Your task to perform on an android device: View the shopping cart on walmart.com. Search for alienware aurora on walmart.com, select the first entry, add it to the cart, then select checkout. Image 0: 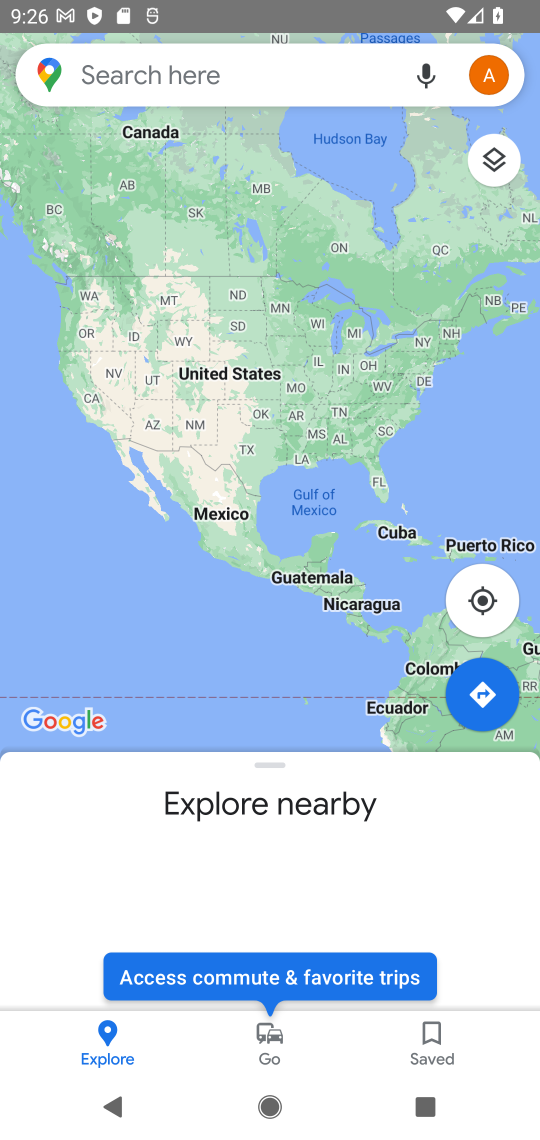
Step 0: press home button
Your task to perform on an android device: View the shopping cart on walmart.com. Search for alienware aurora on walmart.com, select the first entry, add it to the cart, then select checkout. Image 1: 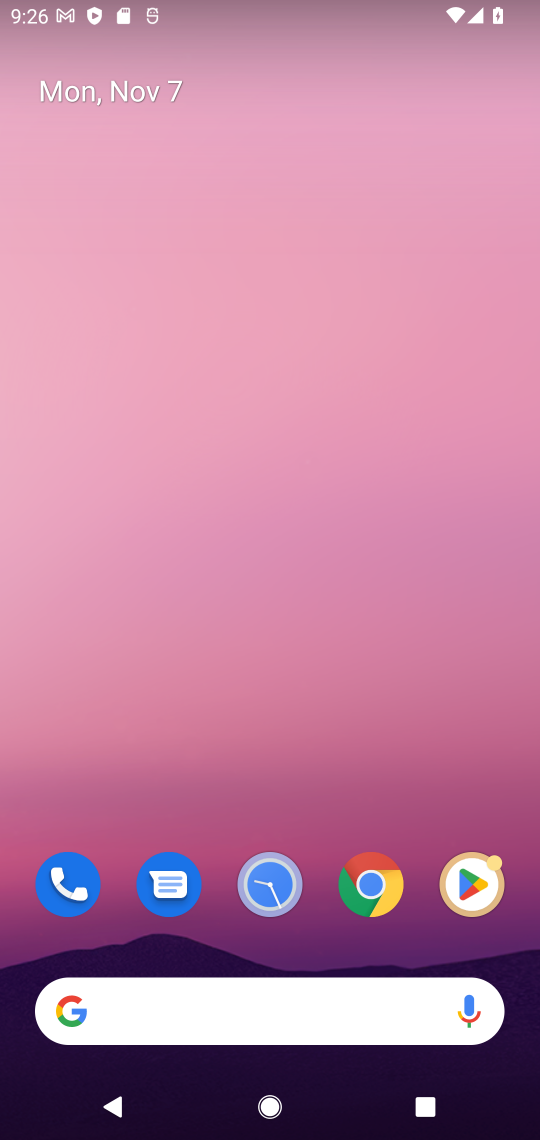
Step 1: click (357, 868)
Your task to perform on an android device: View the shopping cart on walmart.com. Search for alienware aurora on walmart.com, select the first entry, add it to the cart, then select checkout. Image 2: 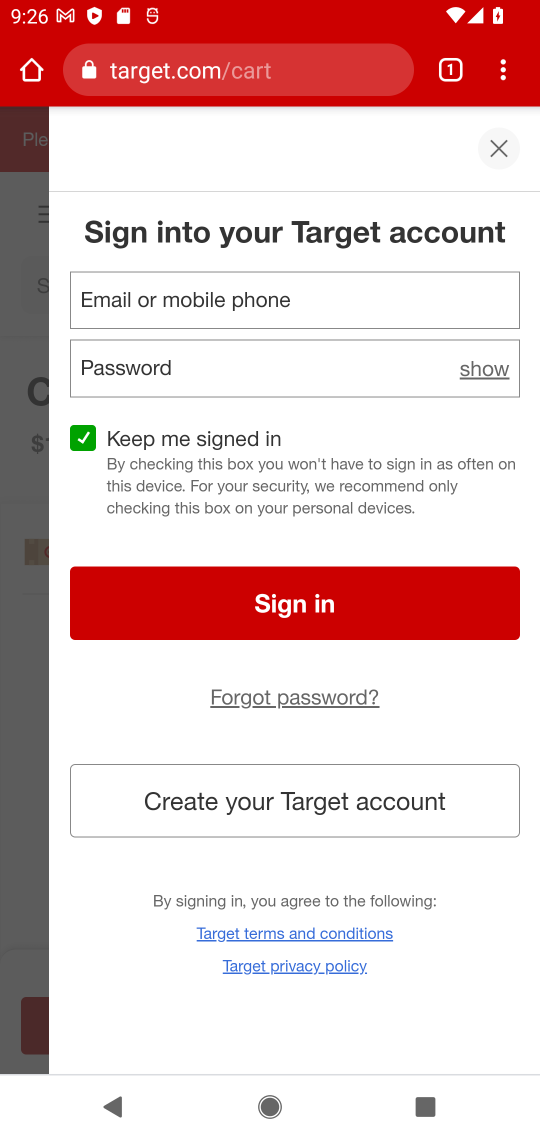
Step 2: click (350, 79)
Your task to perform on an android device: View the shopping cart on walmart.com. Search for alienware aurora on walmart.com, select the first entry, add it to the cart, then select checkout. Image 3: 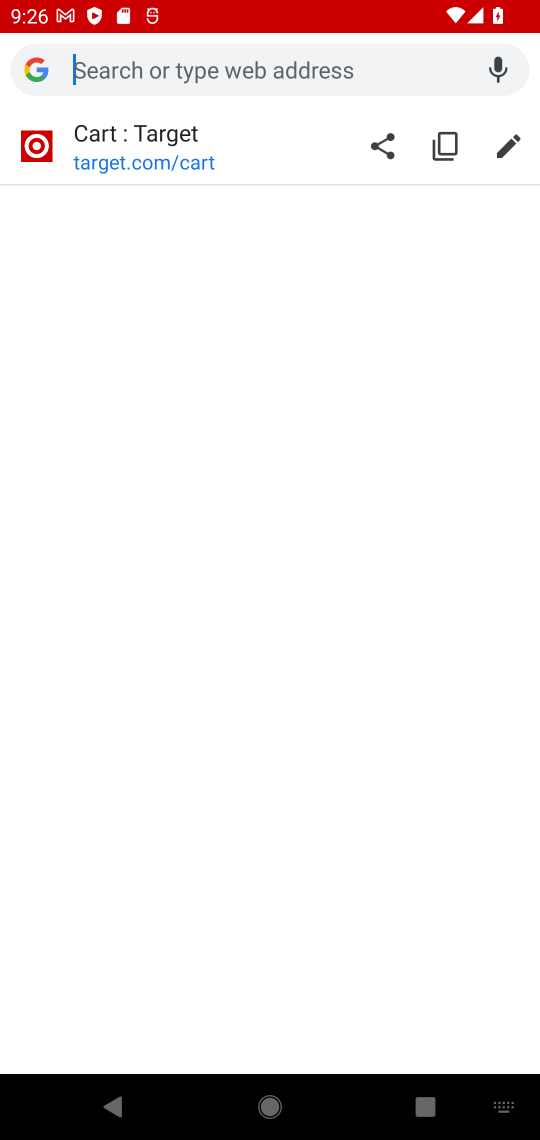
Step 3: type "walmart.com"
Your task to perform on an android device: View the shopping cart on walmart.com. Search for alienware aurora on walmart.com, select the first entry, add it to the cart, then select checkout. Image 4: 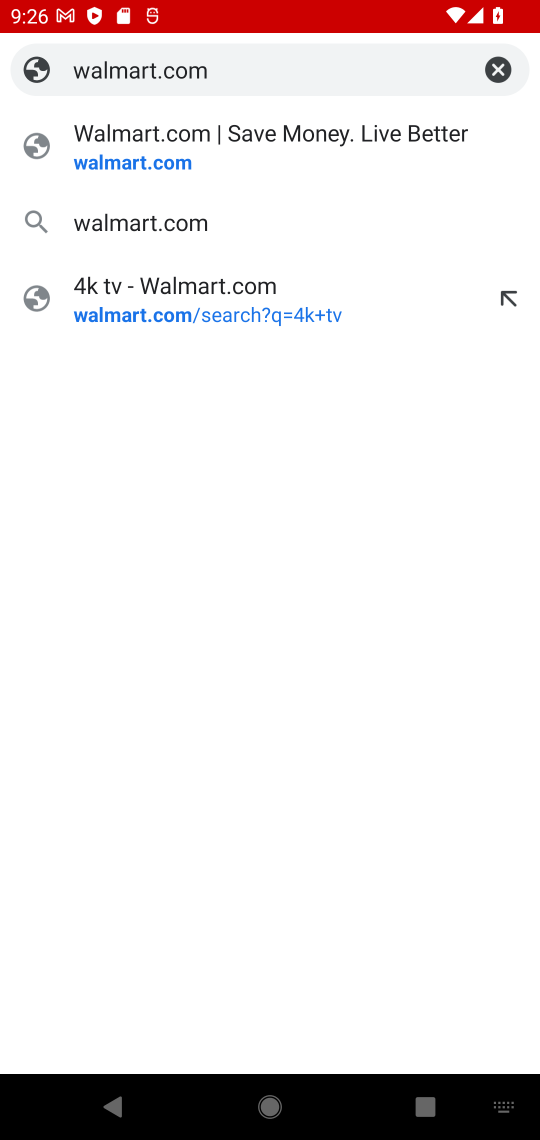
Step 4: click (123, 224)
Your task to perform on an android device: View the shopping cart on walmart.com. Search for alienware aurora on walmart.com, select the first entry, add it to the cart, then select checkout. Image 5: 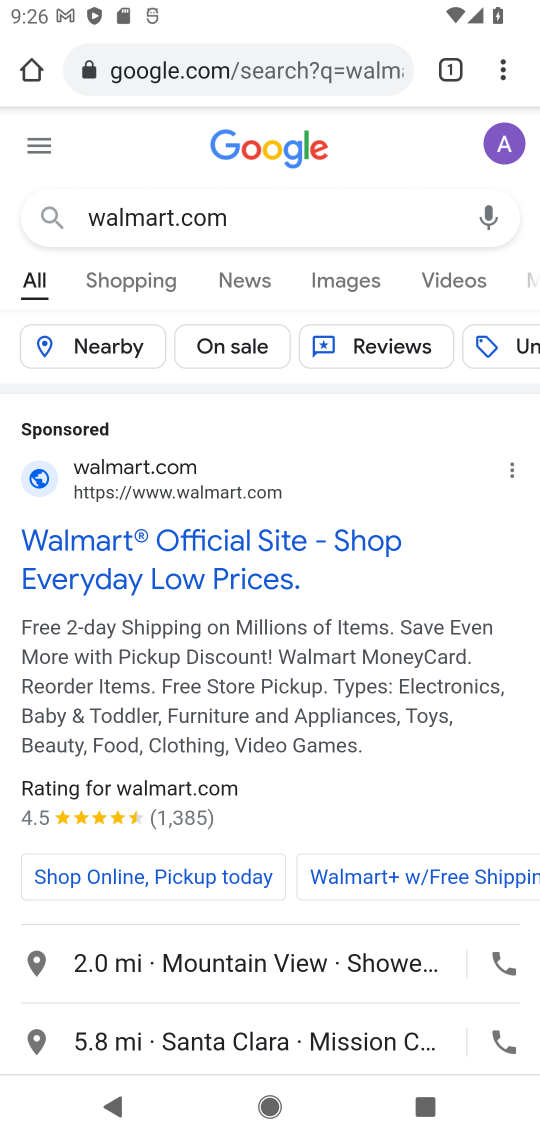
Step 5: click (136, 480)
Your task to perform on an android device: View the shopping cart on walmart.com. Search for alienware aurora on walmart.com, select the first entry, add it to the cart, then select checkout. Image 6: 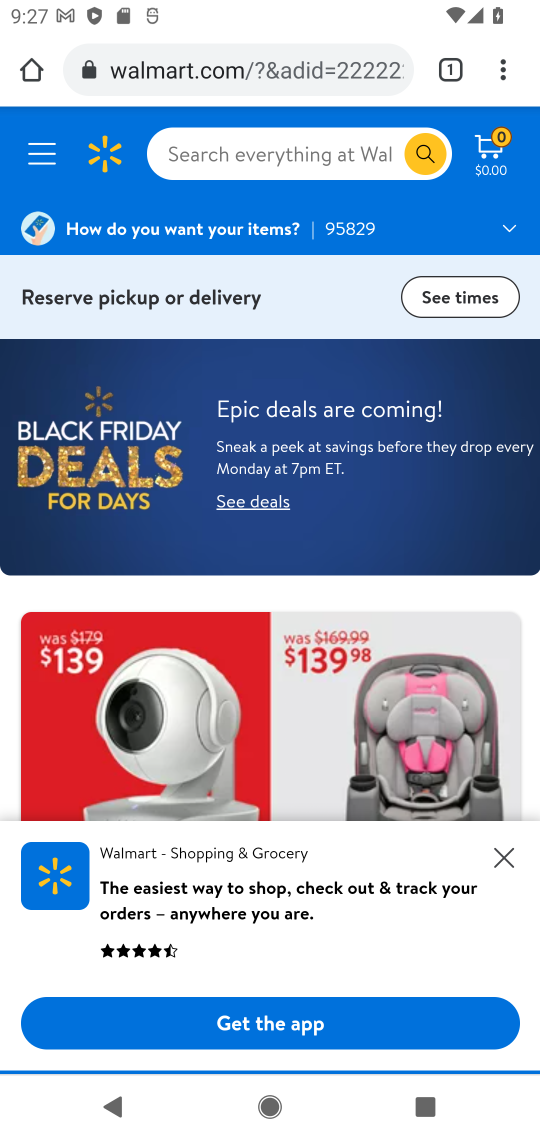
Step 6: click (270, 158)
Your task to perform on an android device: View the shopping cart on walmart.com. Search for alienware aurora on walmart.com, select the first entry, add it to the cart, then select checkout. Image 7: 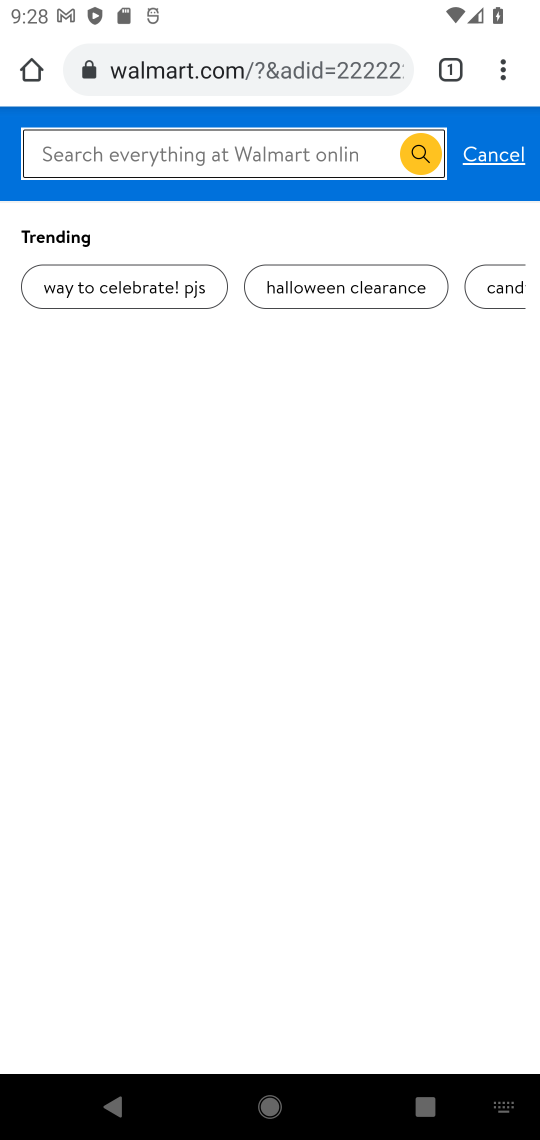
Step 7: click (300, 156)
Your task to perform on an android device: View the shopping cart on walmart.com. Search for alienware aurora on walmart.com, select the first entry, add it to the cart, then select checkout. Image 8: 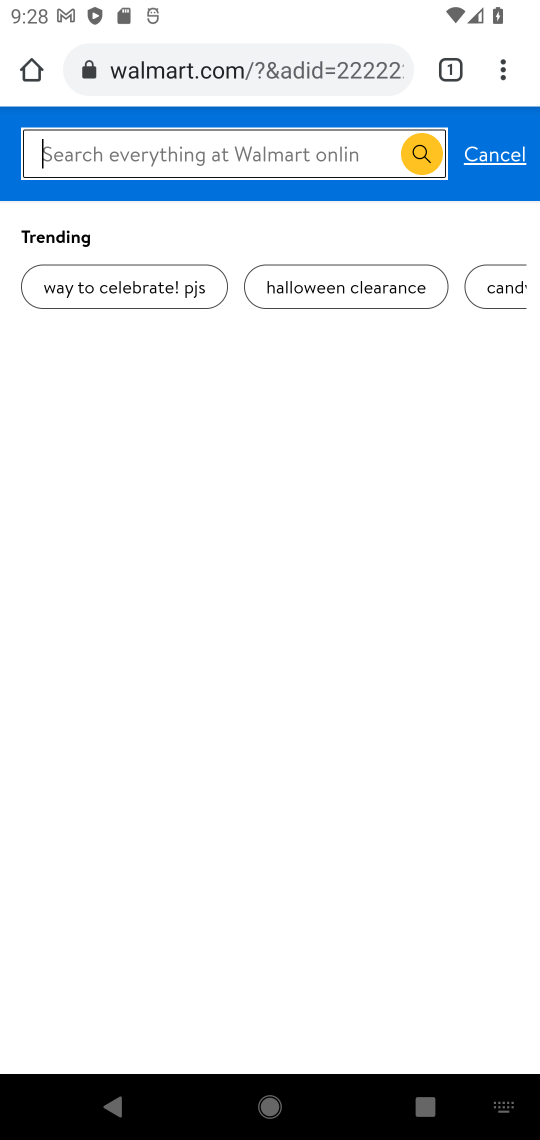
Step 8: click (145, 171)
Your task to perform on an android device: View the shopping cart on walmart.com. Search for alienware aurora on walmart.com, select the first entry, add it to the cart, then select checkout. Image 9: 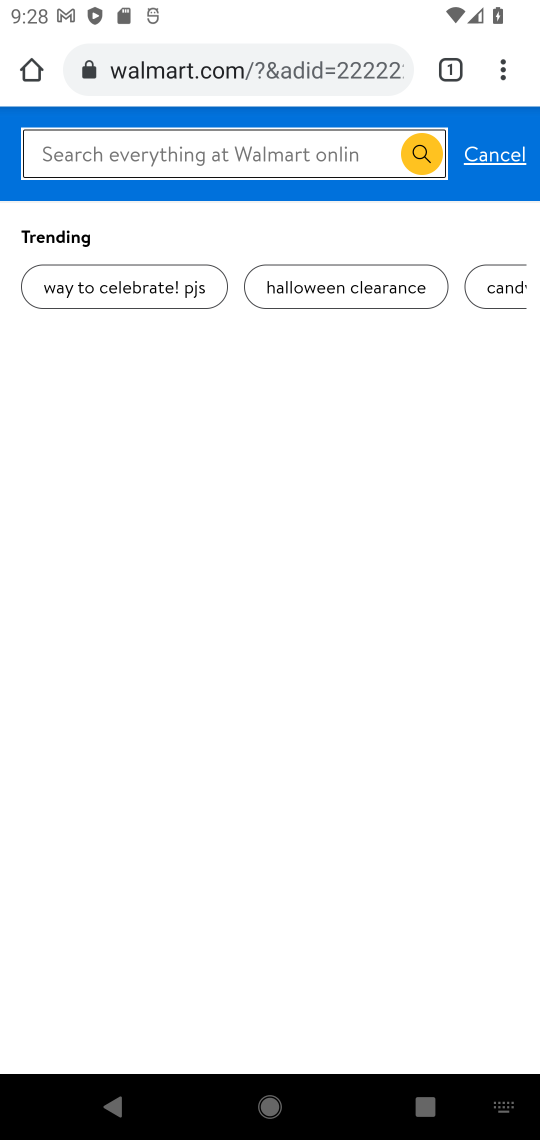
Step 9: type "alienware aurora"
Your task to perform on an android device: View the shopping cart on walmart.com. Search for alienware aurora on walmart.com, select the first entry, add it to the cart, then select checkout. Image 10: 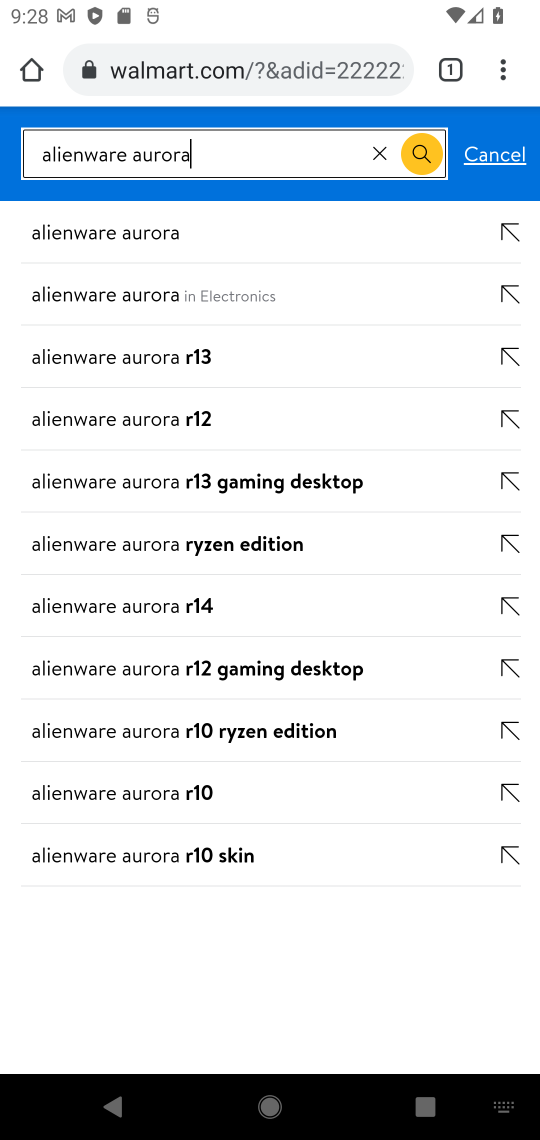
Step 10: click (134, 222)
Your task to perform on an android device: View the shopping cart on walmart.com. Search for alienware aurora on walmart.com, select the first entry, add it to the cart, then select checkout. Image 11: 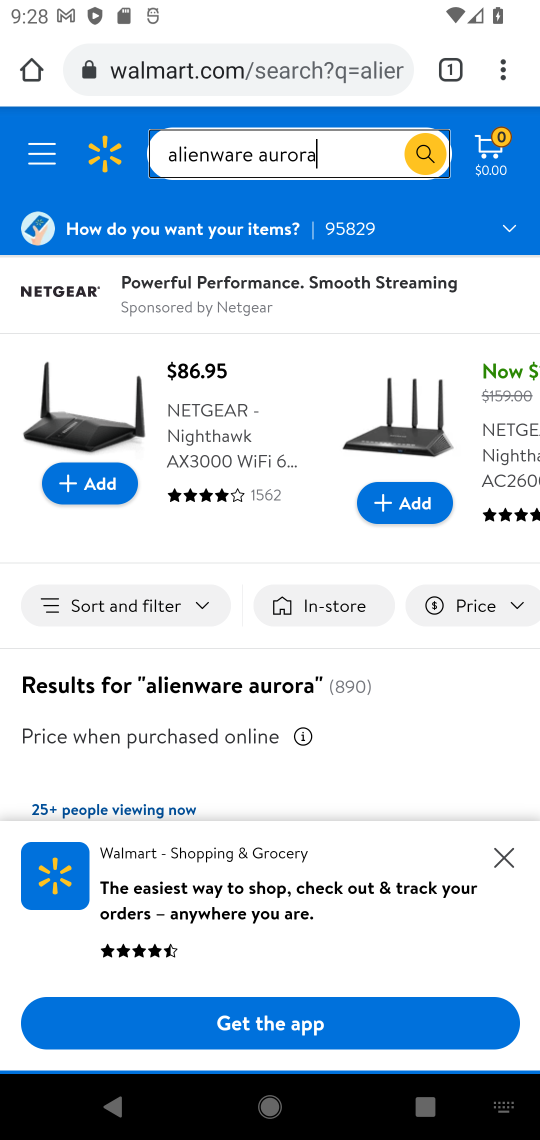
Step 11: drag from (420, 722) to (347, 347)
Your task to perform on an android device: View the shopping cart on walmart.com. Search for alienware aurora on walmart.com, select the first entry, add it to the cart, then select checkout. Image 12: 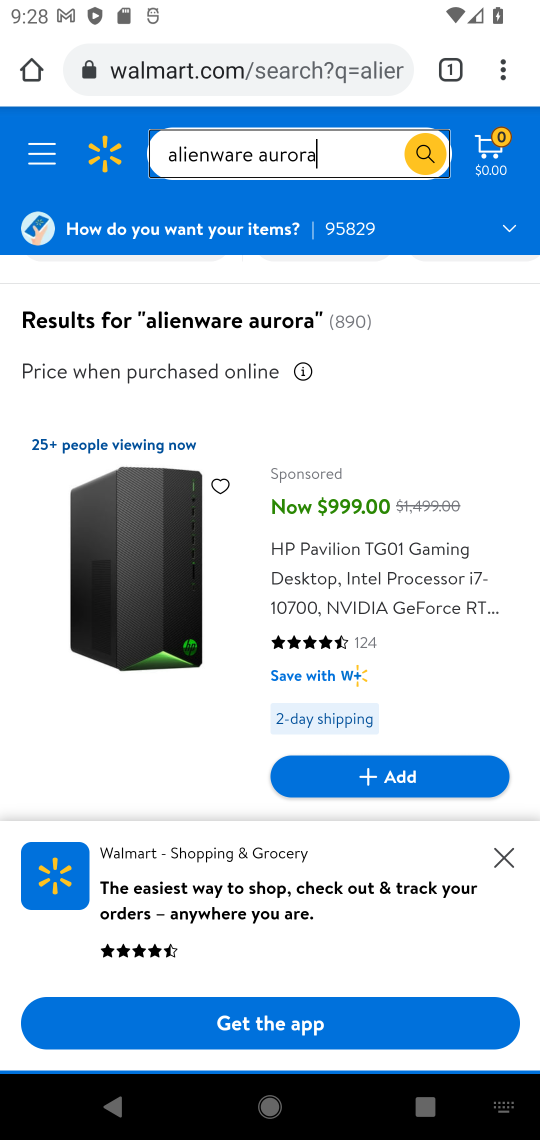
Step 12: click (508, 856)
Your task to perform on an android device: View the shopping cart on walmart.com. Search for alienware aurora on walmart.com, select the first entry, add it to the cart, then select checkout. Image 13: 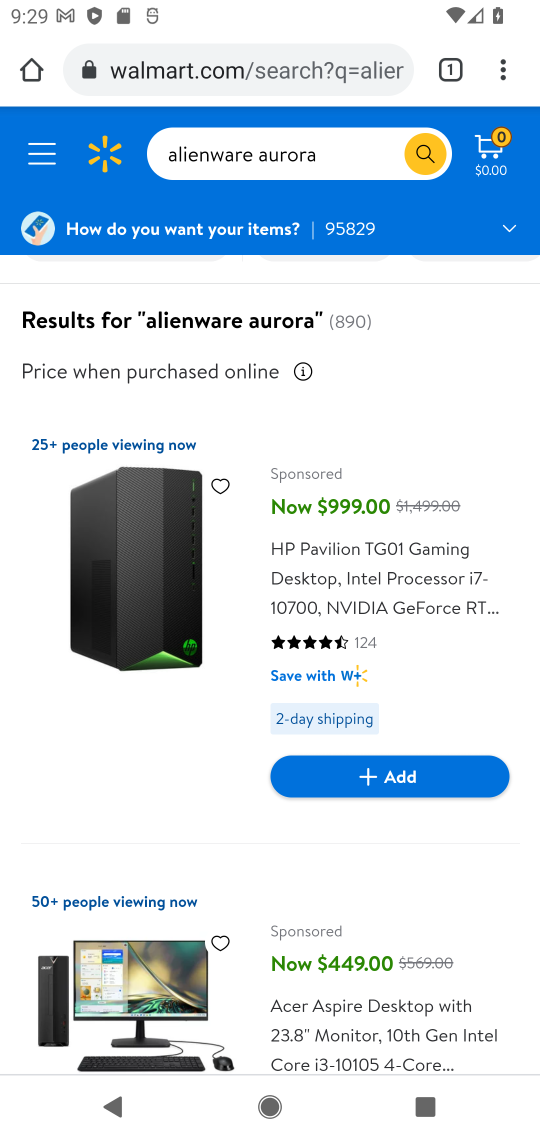
Step 13: drag from (447, 609) to (452, 351)
Your task to perform on an android device: View the shopping cart on walmart.com. Search for alienware aurora on walmart.com, select the first entry, add it to the cart, then select checkout. Image 14: 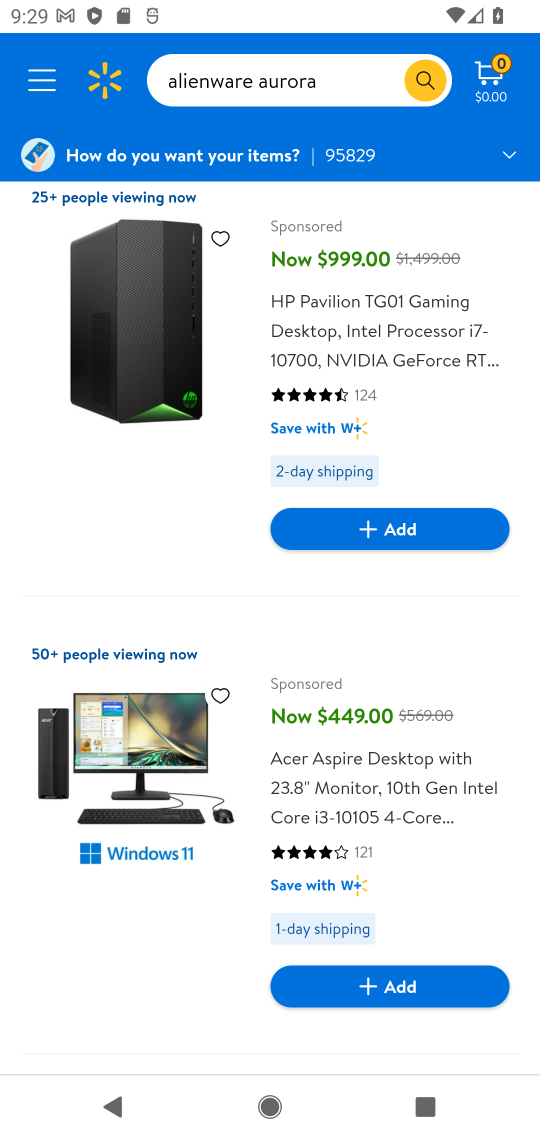
Step 14: drag from (455, 742) to (433, 434)
Your task to perform on an android device: View the shopping cart on walmart.com. Search for alienware aurora on walmart.com, select the first entry, add it to the cart, then select checkout. Image 15: 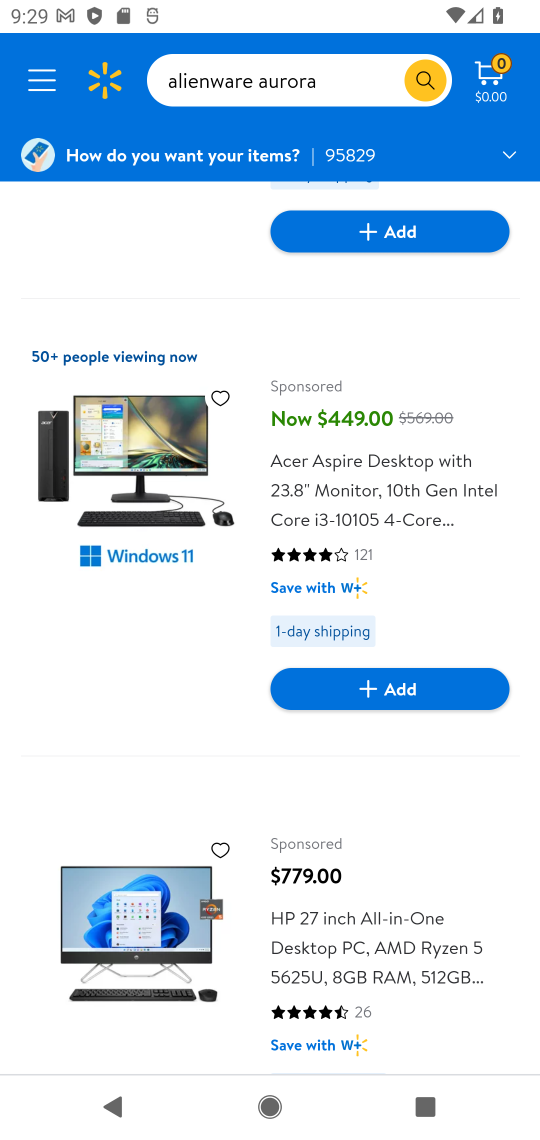
Step 15: drag from (469, 1019) to (449, 541)
Your task to perform on an android device: View the shopping cart on walmart.com. Search for alienware aurora on walmart.com, select the first entry, add it to the cart, then select checkout. Image 16: 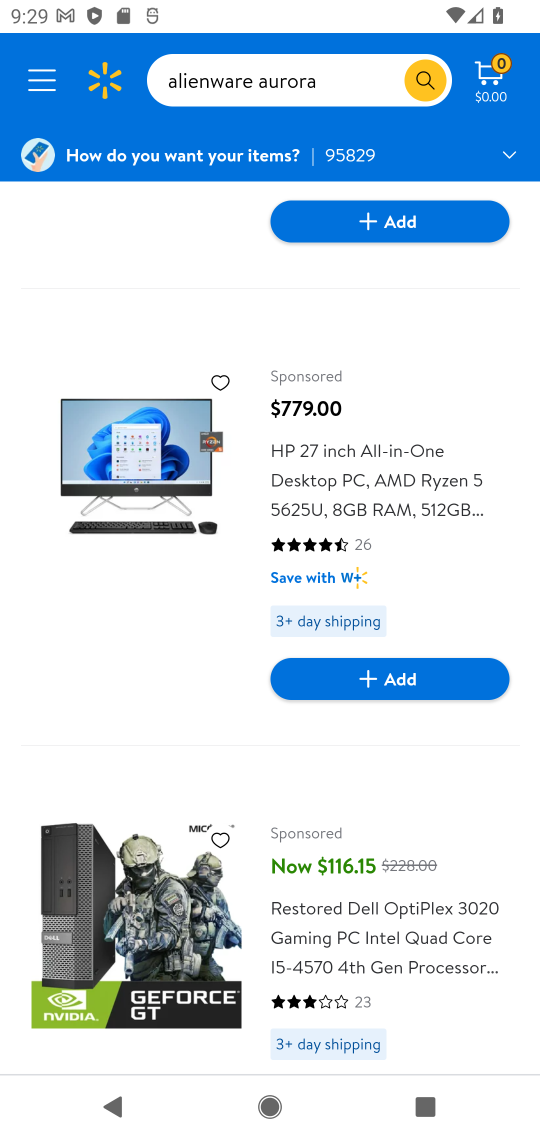
Step 16: drag from (472, 821) to (427, 345)
Your task to perform on an android device: View the shopping cart on walmart.com. Search for alienware aurora on walmart.com, select the first entry, add it to the cart, then select checkout. Image 17: 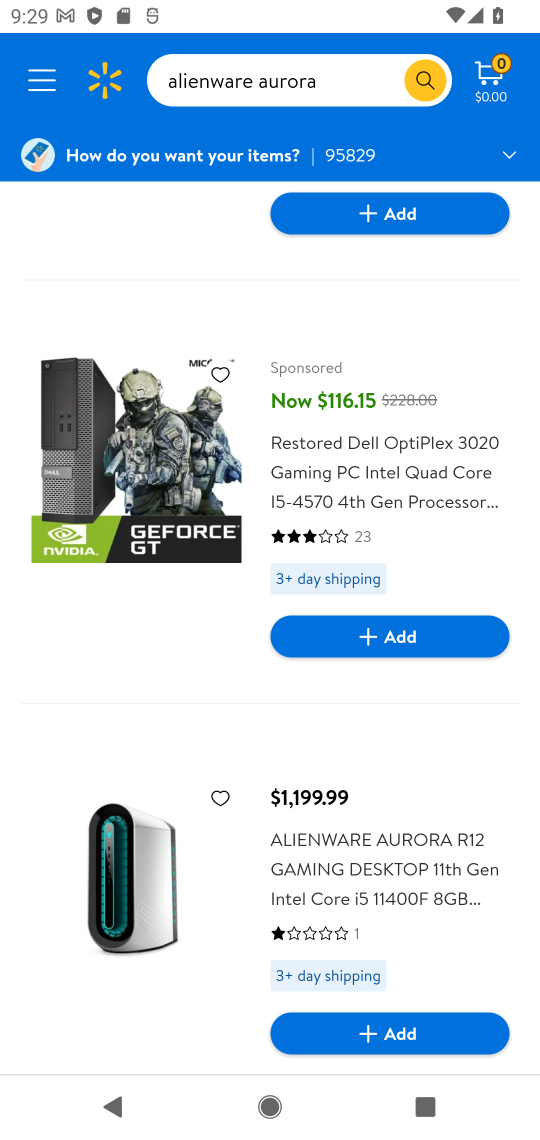
Step 17: click (133, 896)
Your task to perform on an android device: View the shopping cart on walmart.com. Search for alienware aurora on walmart.com, select the first entry, add it to the cart, then select checkout. Image 18: 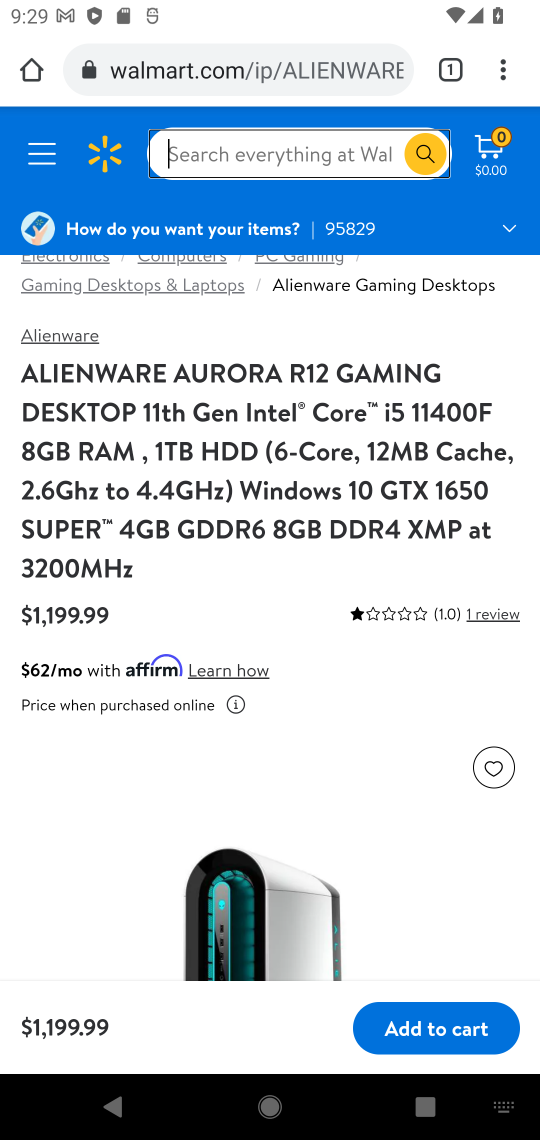
Step 18: click (445, 1022)
Your task to perform on an android device: View the shopping cart on walmart.com. Search for alienware aurora on walmart.com, select the first entry, add it to the cart, then select checkout. Image 19: 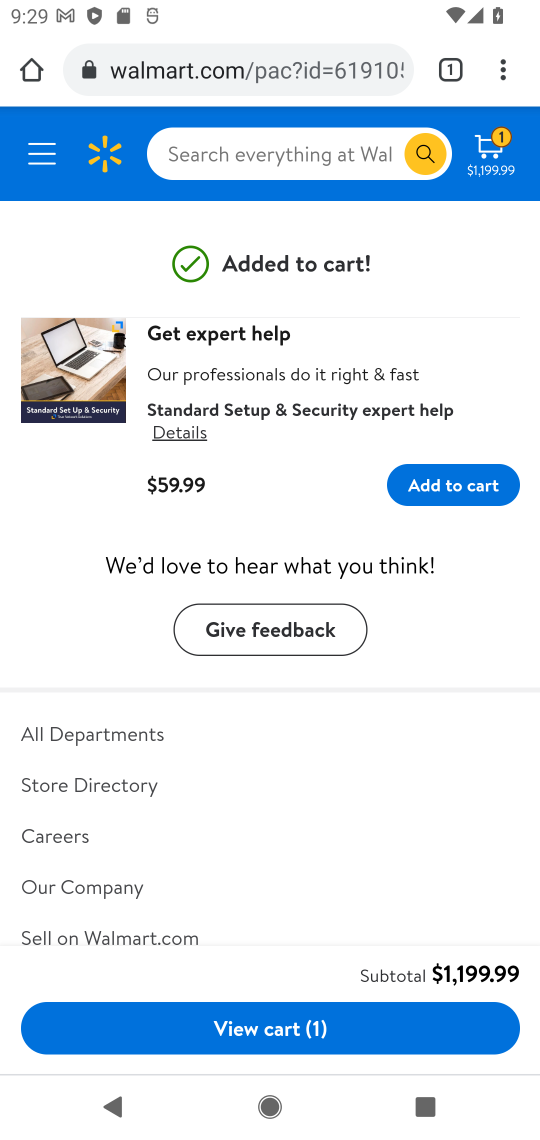
Step 19: click (241, 1023)
Your task to perform on an android device: View the shopping cart on walmart.com. Search for alienware aurora on walmart.com, select the first entry, add it to the cart, then select checkout. Image 20: 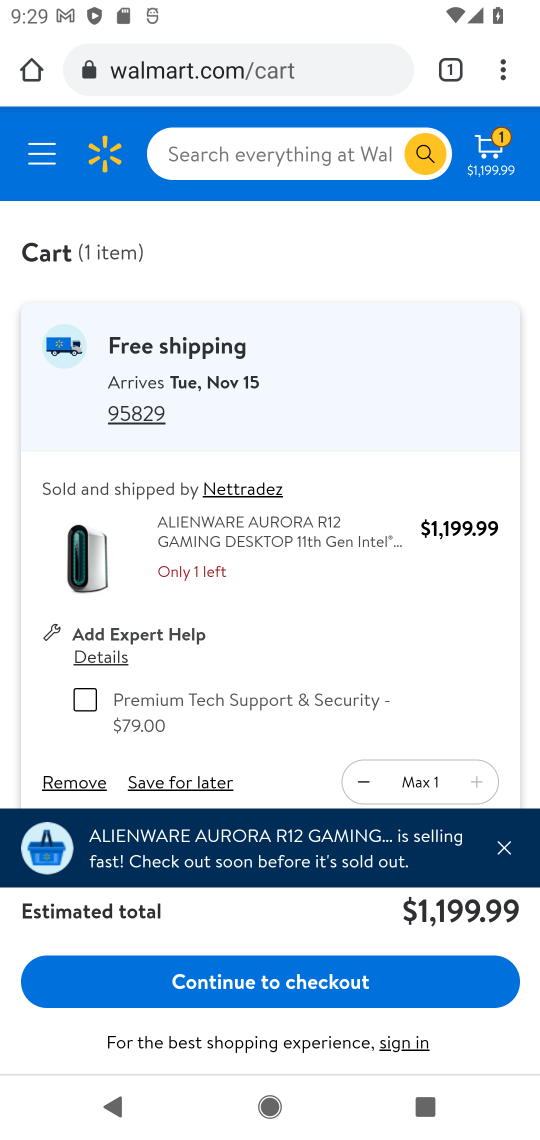
Step 20: click (309, 980)
Your task to perform on an android device: View the shopping cart on walmart.com. Search for alienware aurora on walmart.com, select the first entry, add it to the cart, then select checkout. Image 21: 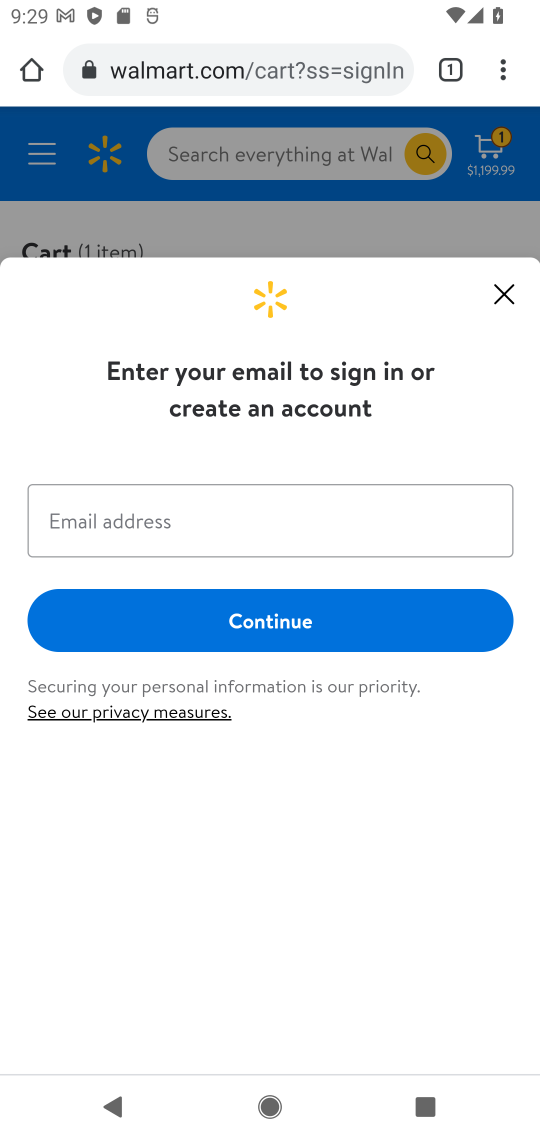
Step 21: task complete